Your task to perform on an android device: turn on priority inbox in the gmail app Image 0: 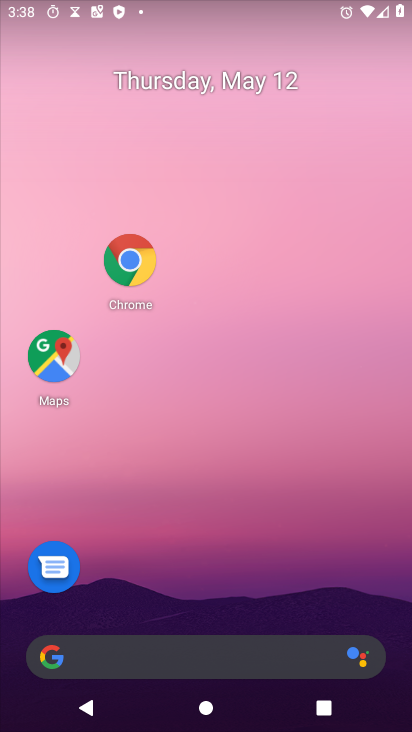
Step 0: drag from (184, 606) to (184, 206)
Your task to perform on an android device: turn on priority inbox in the gmail app Image 1: 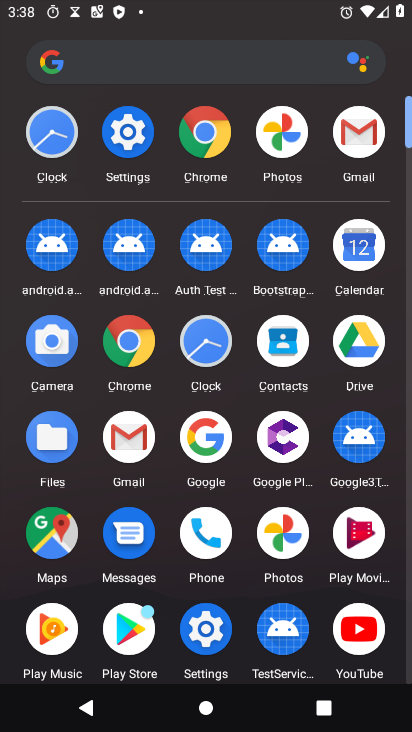
Step 1: click (123, 451)
Your task to perform on an android device: turn on priority inbox in the gmail app Image 2: 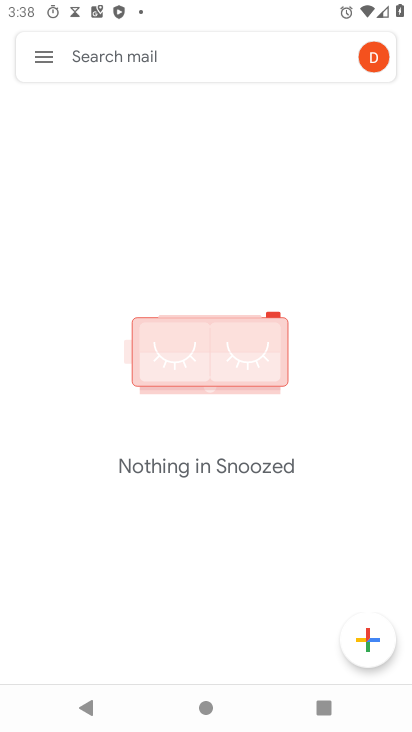
Step 2: click (377, 56)
Your task to perform on an android device: turn on priority inbox in the gmail app Image 3: 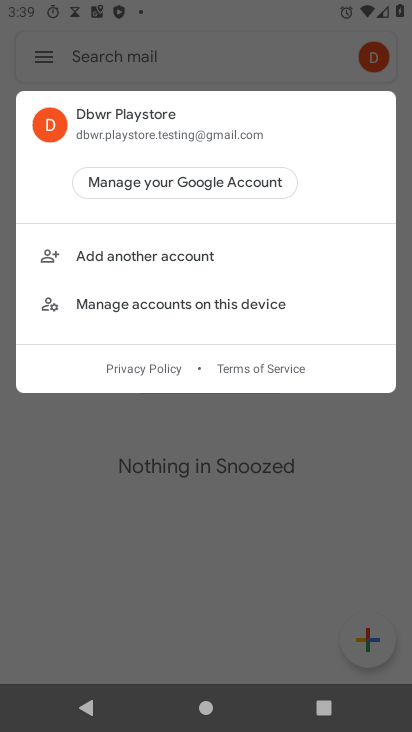
Step 3: click (159, 556)
Your task to perform on an android device: turn on priority inbox in the gmail app Image 4: 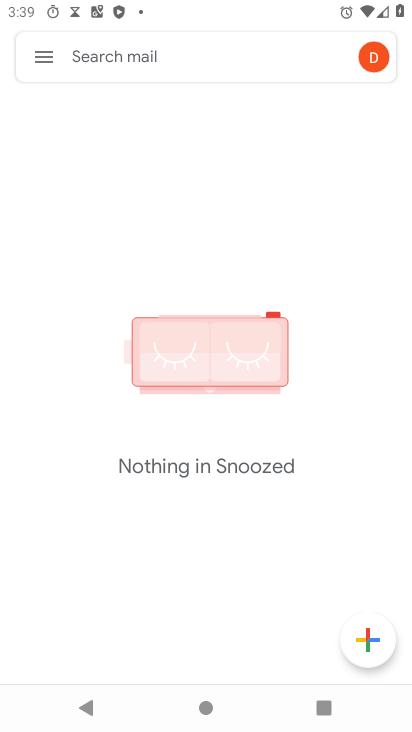
Step 4: click (43, 57)
Your task to perform on an android device: turn on priority inbox in the gmail app Image 5: 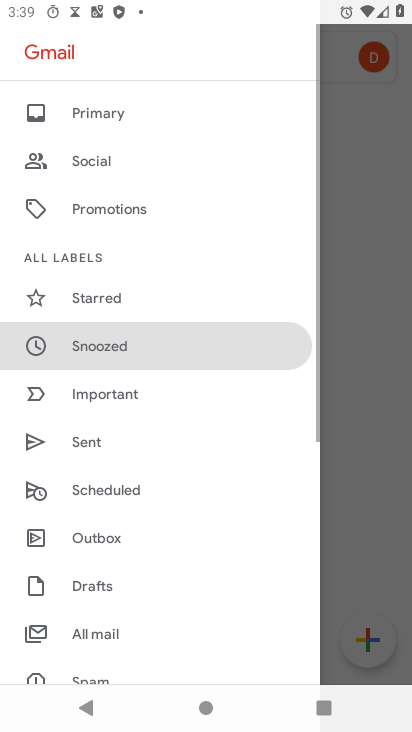
Step 5: drag from (99, 646) to (135, 310)
Your task to perform on an android device: turn on priority inbox in the gmail app Image 6: 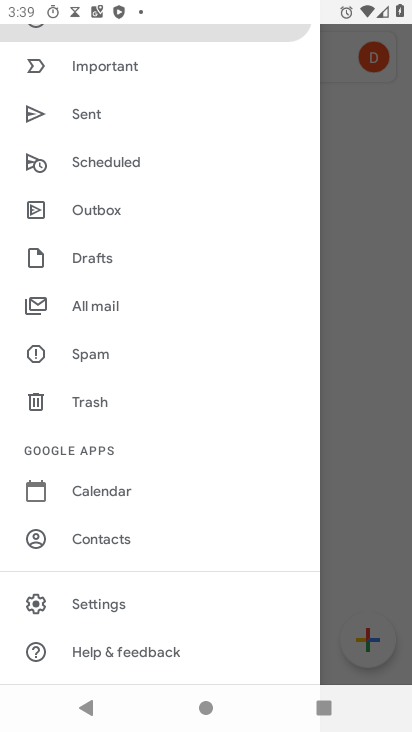
Step 6: click (126, 596)
Your task to perform on an android device: turn on priority inbox in the gmail app Image 7: 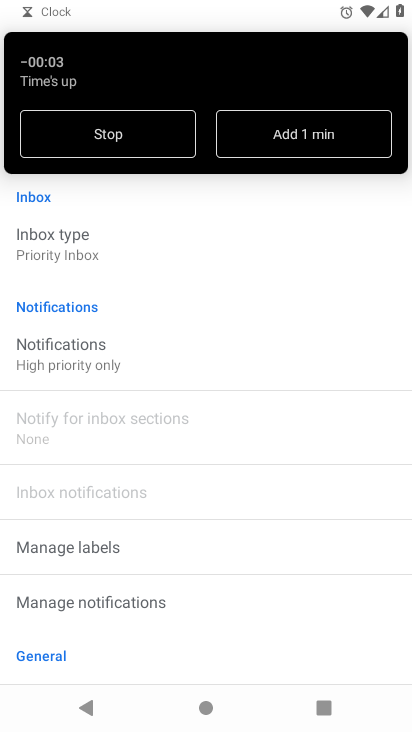
Step 7: click (85, 141)
Your task to perform on an android device: turn on priority inbox in the gmail app Image 8: 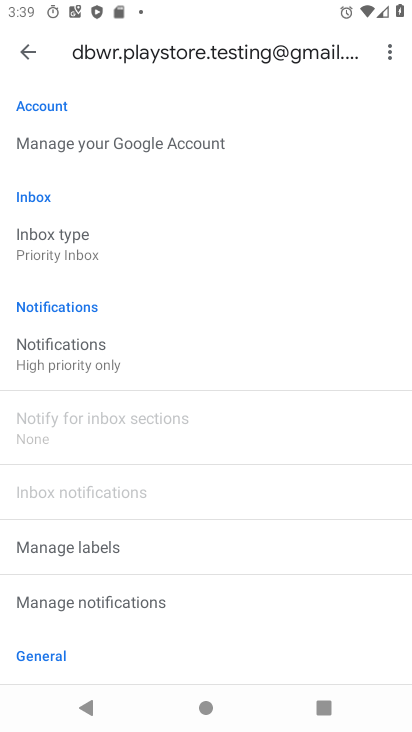
Step 8: task complete